Your task to perform on an android device: Open the calendar app, open the side menu, and click the "Day" option Image 0: 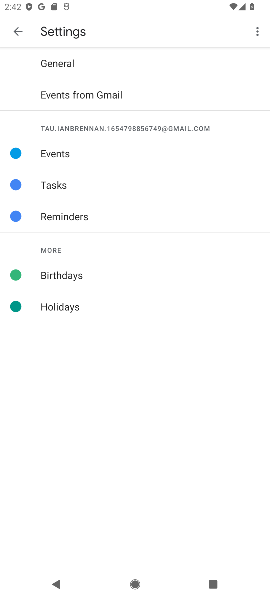
Step 0: press home button
Your task to perform on an android device: Open the calendar app, open the side menu, and click the "Day" option Image 1: 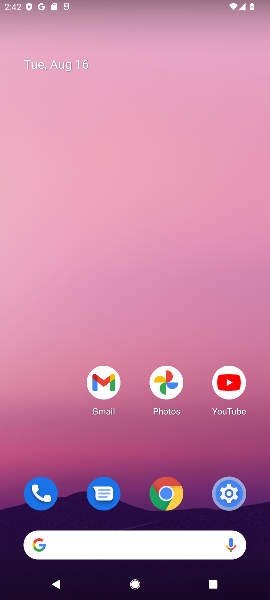
Step 1: drag from (60, 452) to (59, 66)
Your task to perform on an android device: Open the calendar app, open the side menu, and click the "Day" option Image 2: 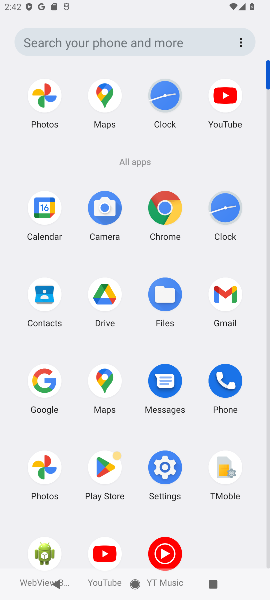
Step 2: click (43, 209)
Your task to perform on an android device: Open the calendar app, open the side menu, and click the "Day" option Image 3: 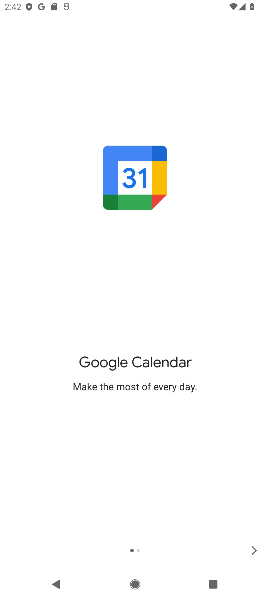
Step 3: click (253, 551)
Your task to perform on an android device: Open the calendar app, open the side menu, and click the "Day" option Image 4: 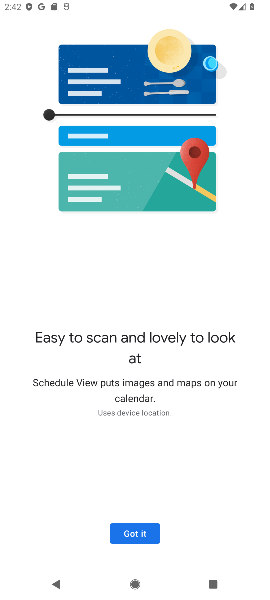
Step 4: click (145, 529)
Your task to perform on an android device: Open the calendar app, open the side menu, and click the "Day" option Image 5: 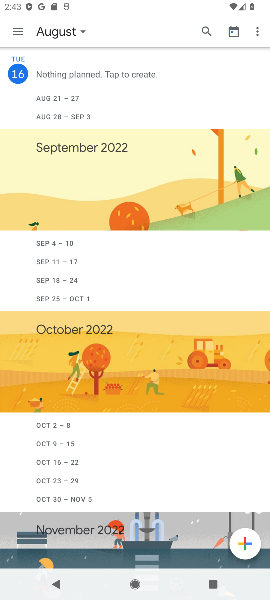
Step 5: click (20, 24)
Your task to perform on an android device: Open the calendar app, open the side menu, and click the "Day" option Image 6: 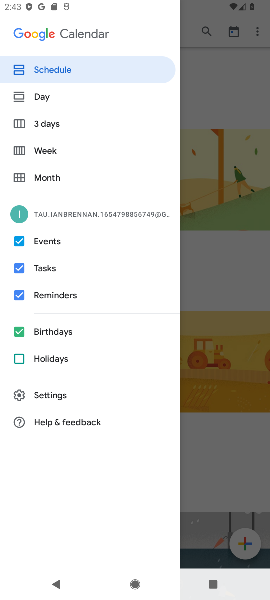
Step 6: click (43, 95)
Your task to perform on an android device: Open the calendar app, open the side menu, and click the "Day" option Image 7: 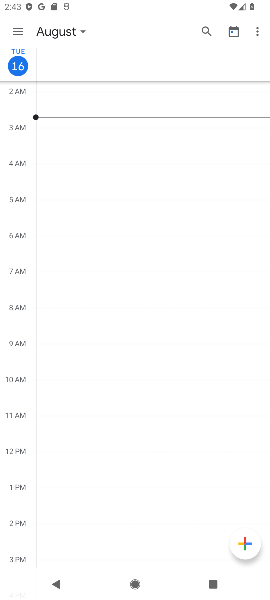
Step 7: task complete